Your task to perform on an android device: change timer sound Image 0: 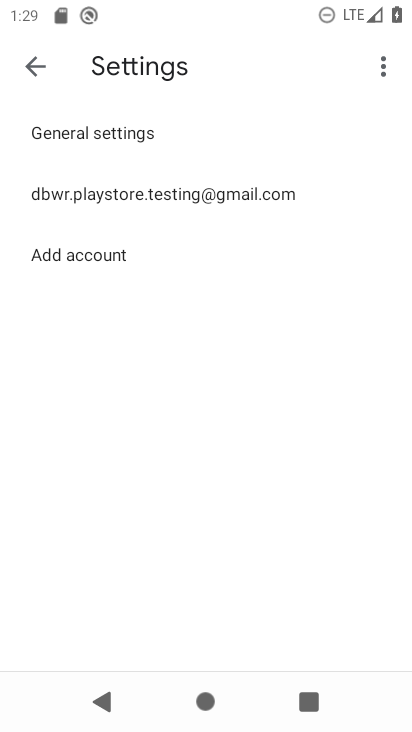
Step 0: press home button
Your task to perform on an android device: change timer sound Image 1: 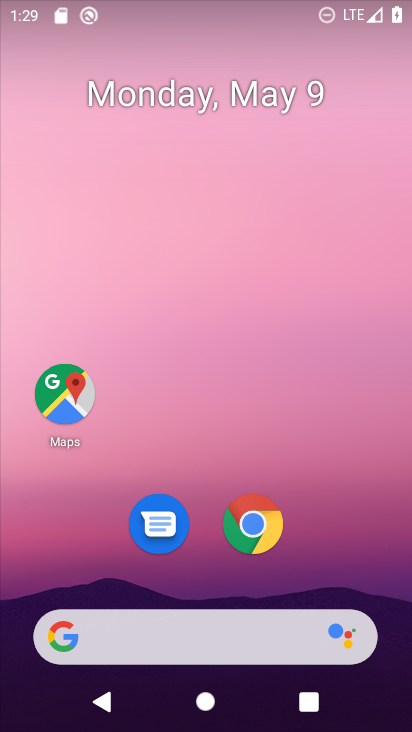
Step 1: drag from (196, 555) to (235, 71)
Your task to perform on an android device: change timer sound Image 2: 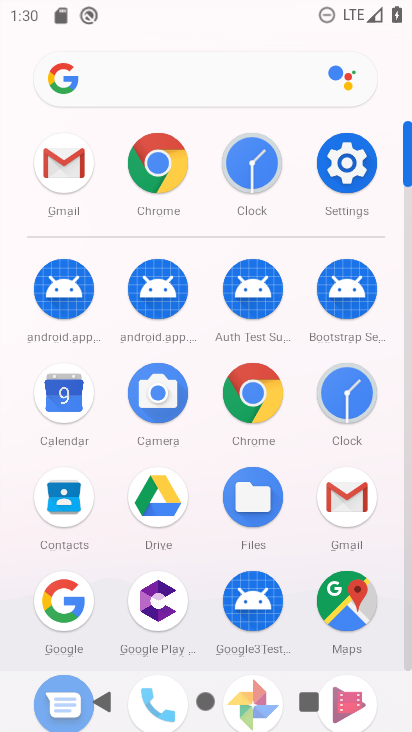
Step 2: click (258, 166)
Your task to perform on an android device: change timer sound Image 3: 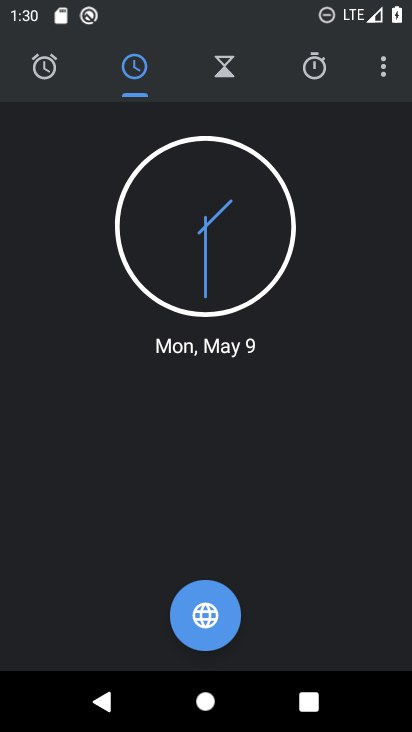
Step 3: click (380, 61)
Your task to perform on an android device: change timer sound Image 4: 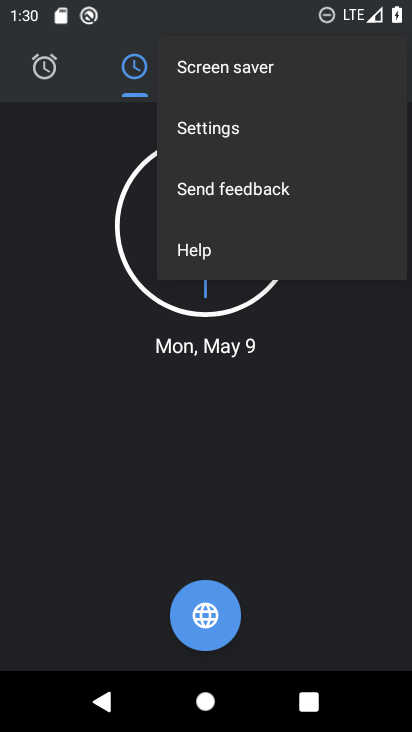
Step 4: click (277, 125)
Your task to perform on an android device: change timer sound Image 5: 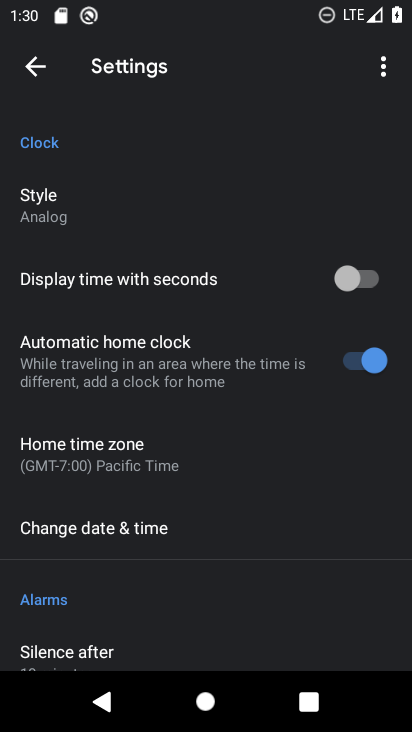
Step 5: drag from (177, 585) to (238, 115)
Your task to perform on an android device: change timer sound Image 6: 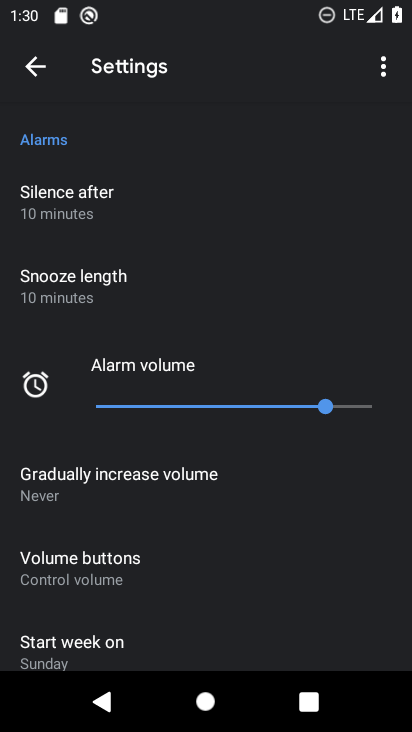
Step 6: drag from (225, 541) to (269, 121)
Your task to perform on an android device: change timer sound Image 7: 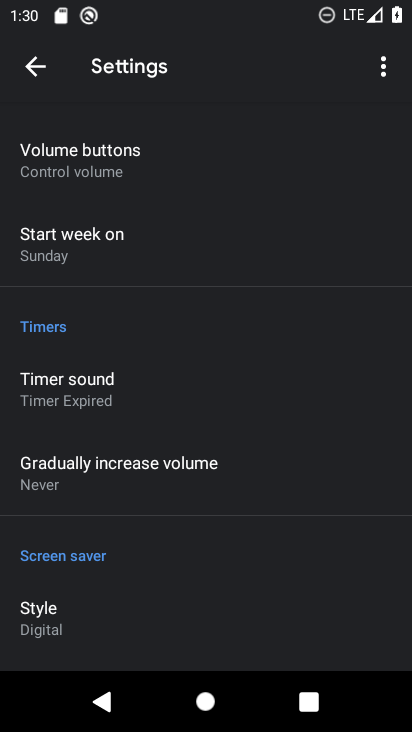
Step 7: click (127, 373)
Your task to perform on an android device: change timer sound Image 8: 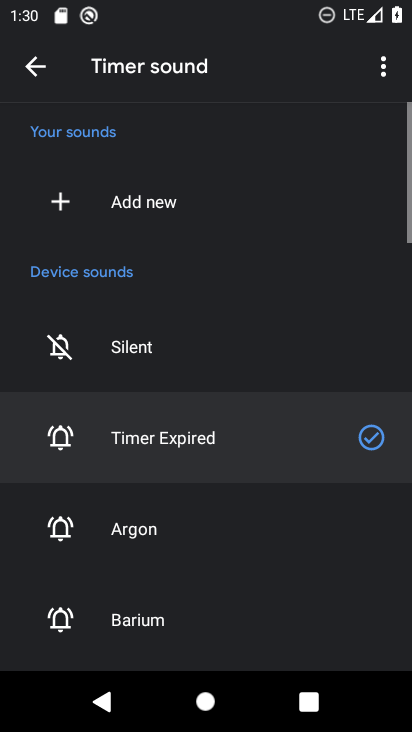
Step 8: click (135, 533)
Your task to perform on an android device: change timer sound Image 9: 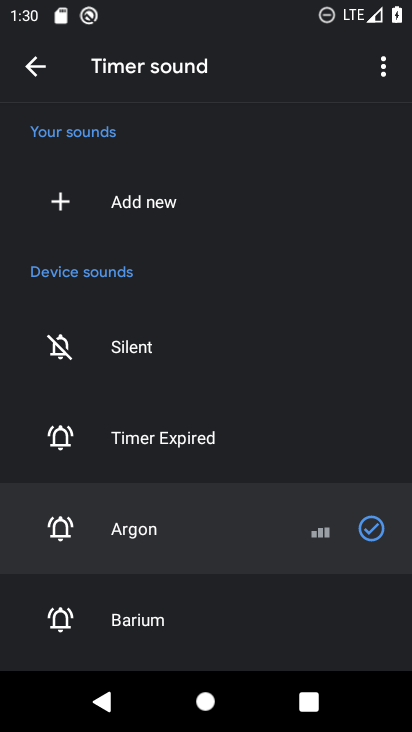
Step 9: task complete